Your task to perform on an android device: toggle airplane mode Image 0: 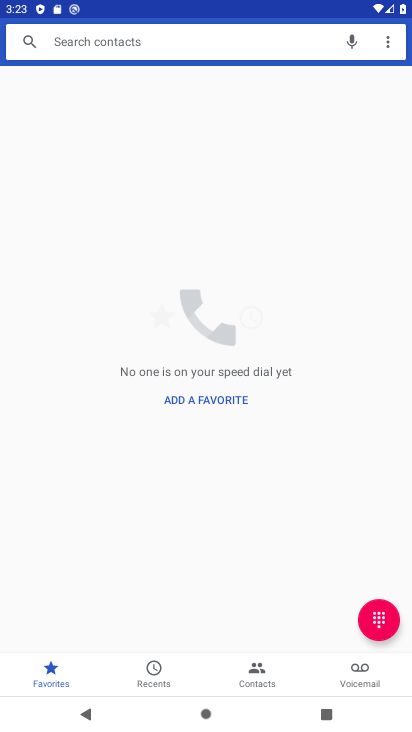
Step 0: click (288, 606)
Your task to perform on an android device: toggle airplane mode Image 1: 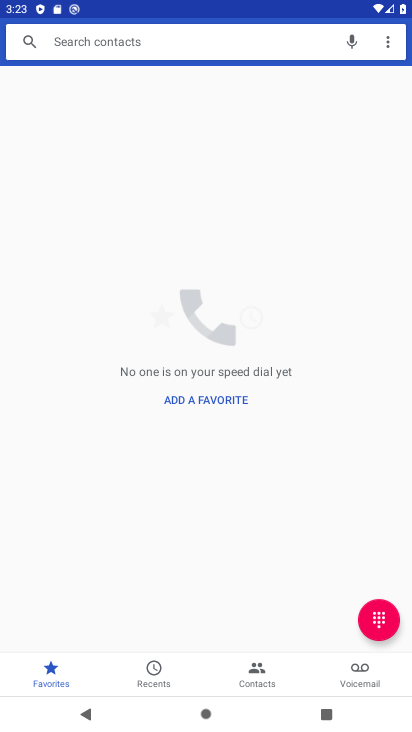
Step 1: press home button
Your task to perform on an android device: toggle airplane mode Image 2: 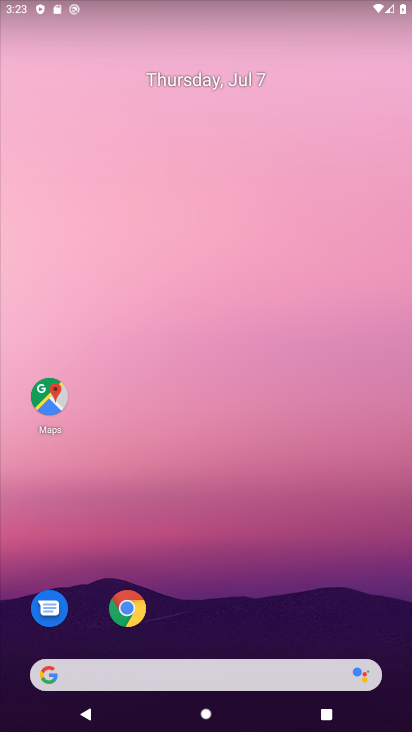
Step 2: drag from (351, 608) to (326, 0)
Your task to perform on an android device: toggle airplane mode Image 3: 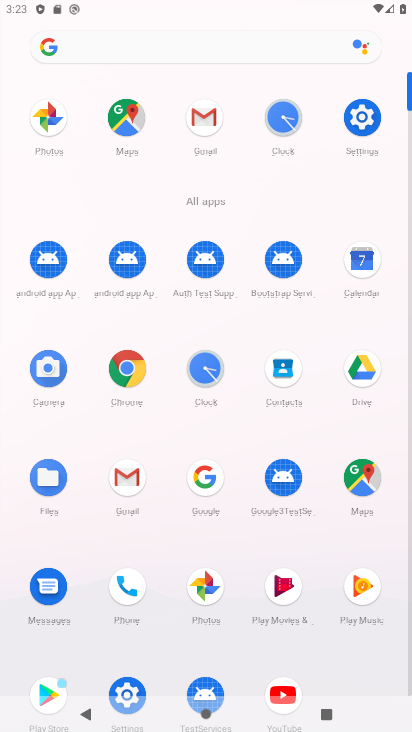
Step 3: click (372, 121)
Your task to perform on an android device: toggle airplane mode Image 4: 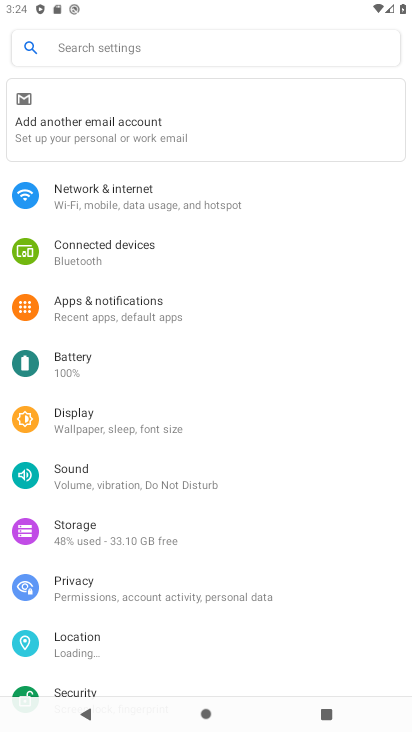
Step 4: click (271, 204)
Your task to perform on an android device: toggle airplane mode Image 5: 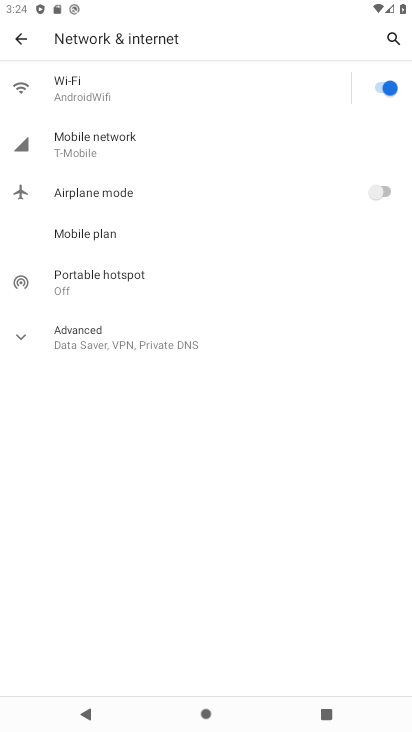
Step 5: click (374, 202)
Your task to perform on an android device: toggle airplane mode Image 6: 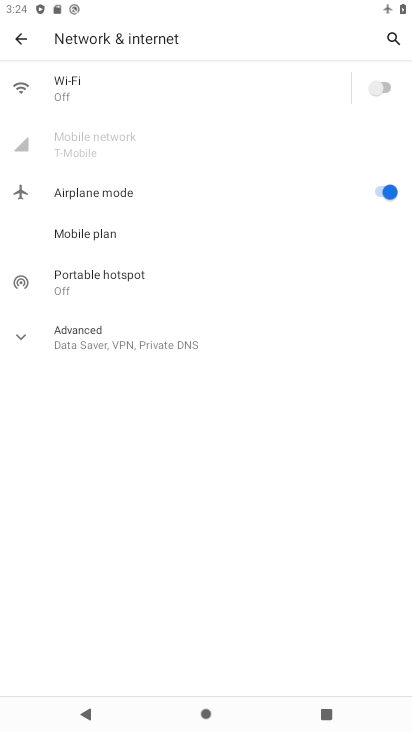
Step 6: task complete